Your task to perform on an android device: View the shopping cart on walmart. Search for macbook pro 15 inch on walmart, select the first entry, and add it to the cart. Image 0: 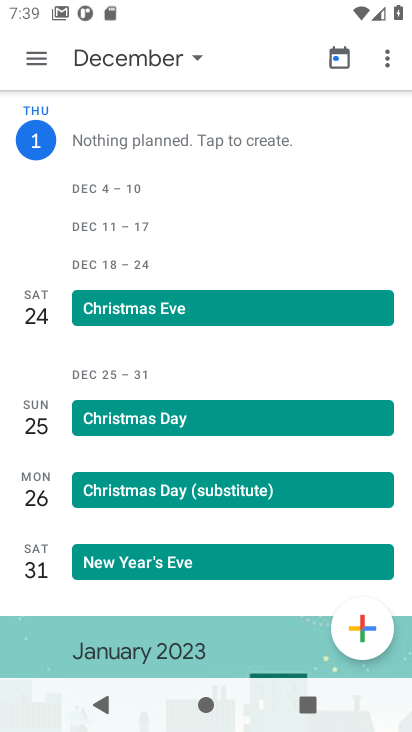
Step 0: press home button
Your task to perform on an android device: View the shopping cart on walmart. Search for macbook pro 15 inch on walmart, select the first entry, and add it to the cart. Image 1: 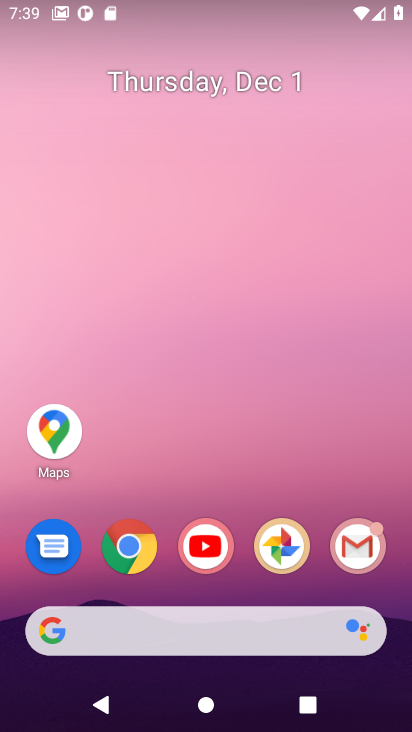
Step 1: click (109, 554)
Your task to perform on an android device: View the shopping cart on walmart. Search for macbook pro 15 inch on walmart, select the first entry, and add it to the cart. Image 2: 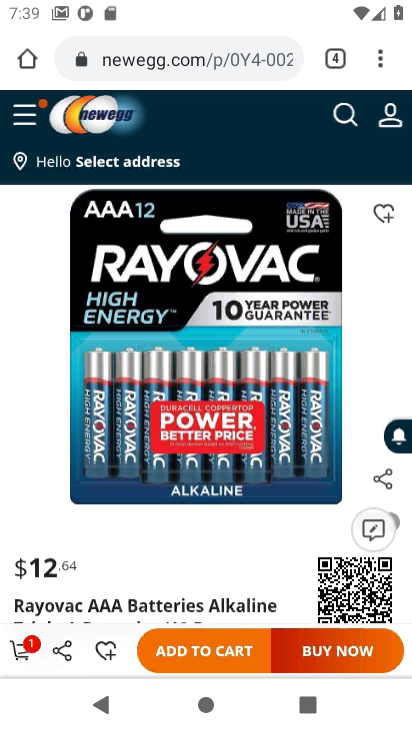
Step 2: click (155, 48)
Your task to perform on an android device: View the shopping cart on walmart. Search for macbook pro 15 inch on walmart, select the first entry, and add it to the cart. Image 3: 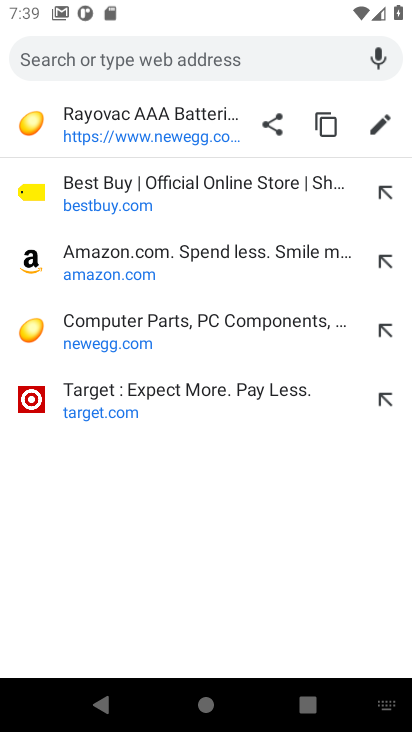
Step 3: type "walmart.com"
Your task to perform on an android device: View the shopping cart on walmart. Search for macbook pro 15 inch on walmart, select the first entry, and add it to the cart. Image 4: 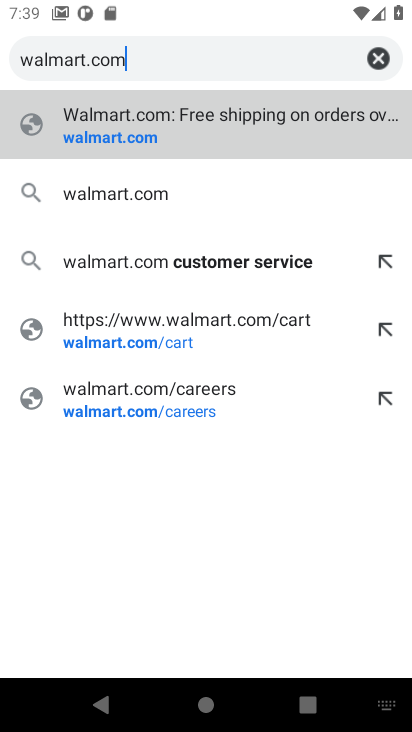
Step 4: click (79, 142)
Your task to perform on an android device: View the shopping cart on walmart. Search for macbook pro 15 inch on walmart, select the first entry, and add it to the cart. Image 5: 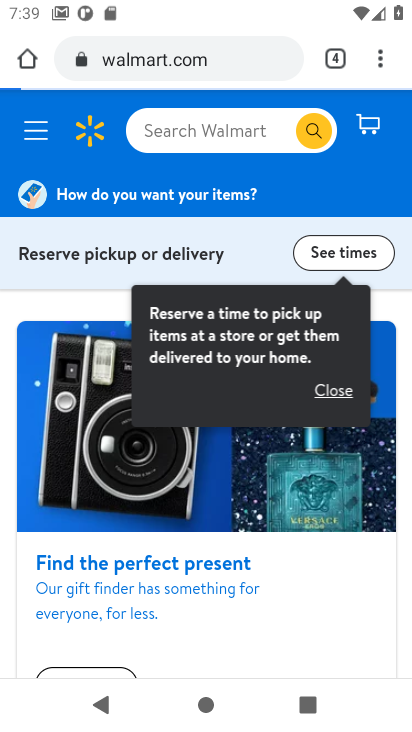
Step 5: click (374, 125)
Your task to perform on an android device: View the shopping cart on walmart. Search for macbook pro 15 inch on walmart, select the first entry, and add it to the cart. Image 6: 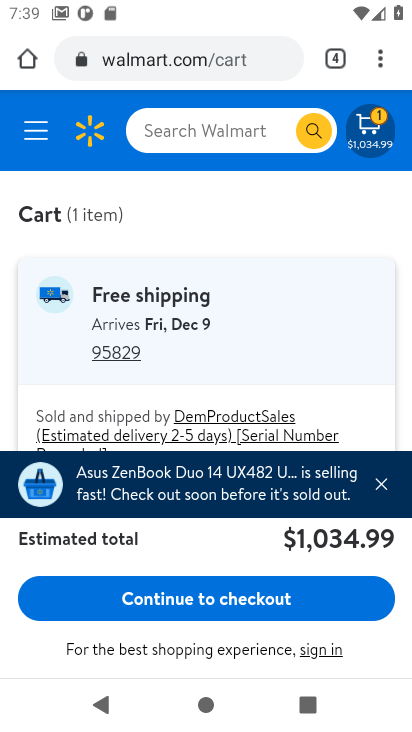
Step 6: drag from (263, 376) to (269, 90)
Your task to perform on an android device: View the shopping cart on walmart. Search for macbook pro 15 inch on walmart, select the first entry, and add it to the cart. Image 7: 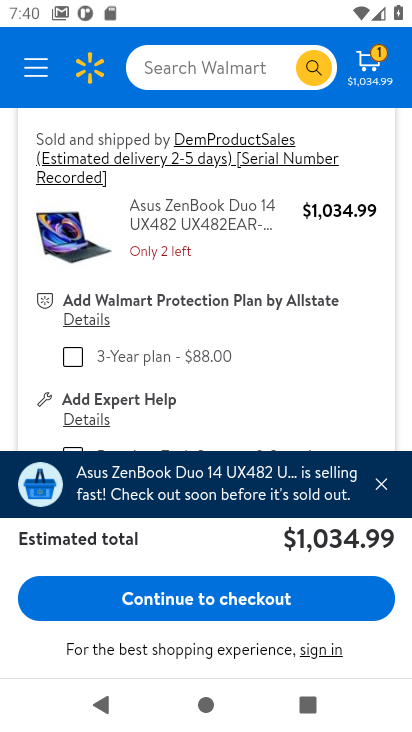
Step 7: click (189, 69)
Your task to perform on an android device: View the shopping cart on walmart. Search for macbook pro 15 inch on walmart, select the first entry, and add it to the cart. Image 8: 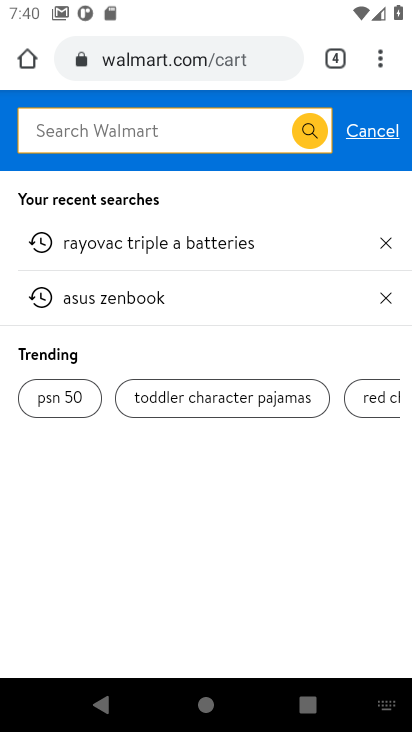
Step 8: type "macbook pro 15 inch "
Your task to perform on an android device: View the shopping cart on walmart. Search for macbook pro 15 inch on walmart, select the first entry, and add it to the cart. Image 9: 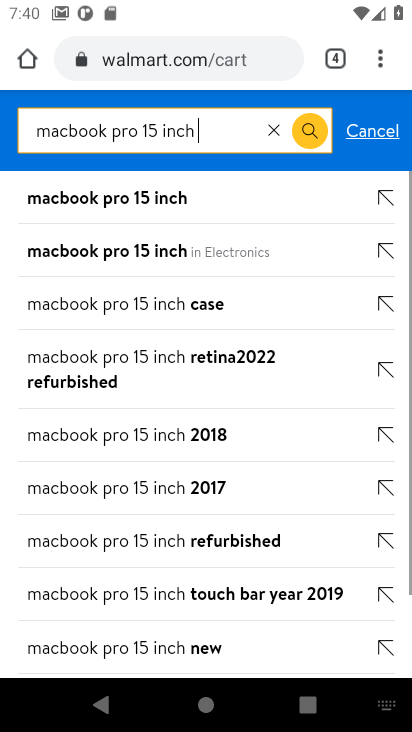
Step 9: click (106, 205)
Your task to perform on an android device: View the shopping cart on walmart. Search for macbook pro 15 inch on walmart, select the first entry, and add it to the cart. Image 10: 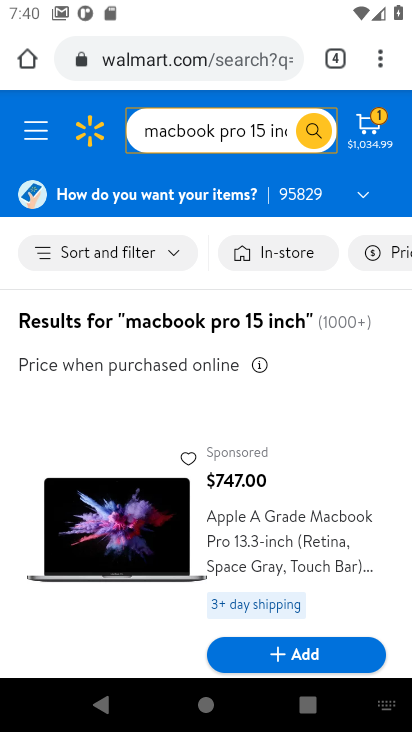
Step 10: drag from (167, 394) to (174, 222)
Your task to perform on an android device: View the shopping cart on walmart. Search for macbook pro 15 inch on walmart, select the first entry, and add it to the cart. Image 11: 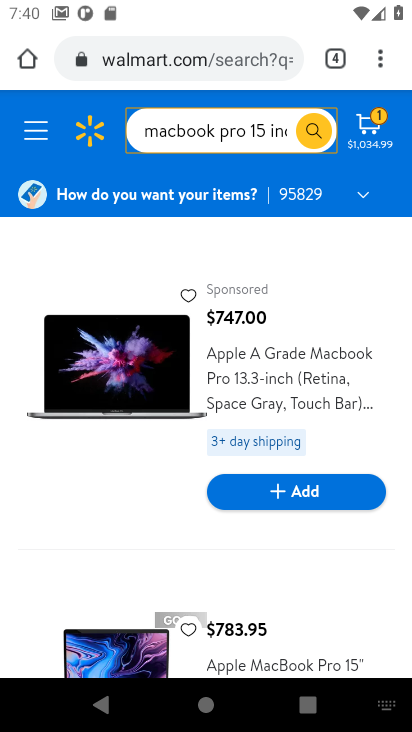
Step 11: click (285, 497)
Your task to perform on an android device: View the shopping cart on walmart. Search for macbook pro 15 inch on walmart, select the first entry, and add it to the cart. Image 12: 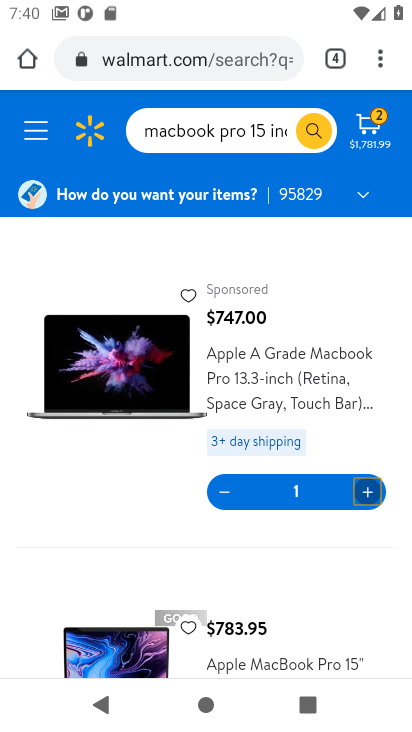
Step 12: task complete